Your task to perform on an android device: Go to eBay Image 0: 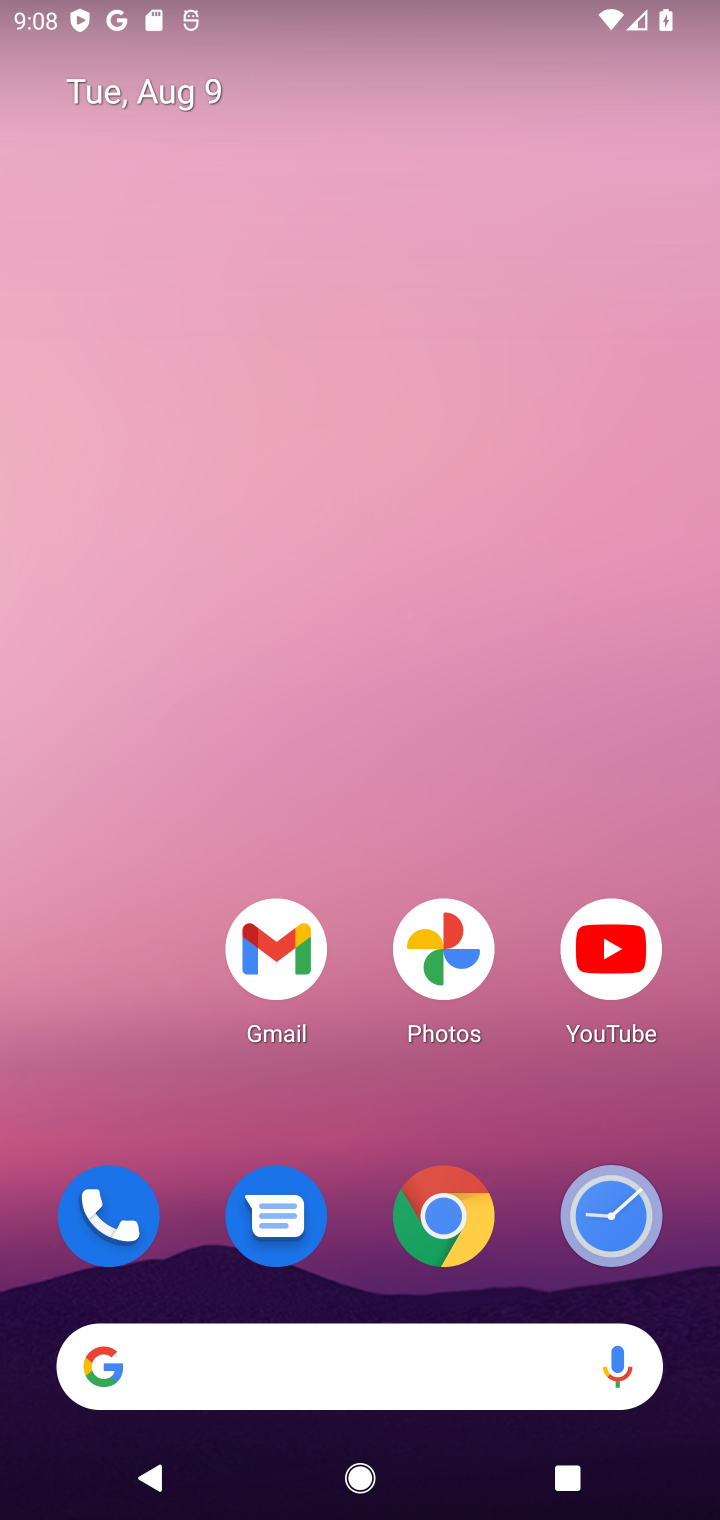
Step 0: drag from (290, 873) to (251, 585)
Your task to perform on an android device: Go to eBay Image 1: 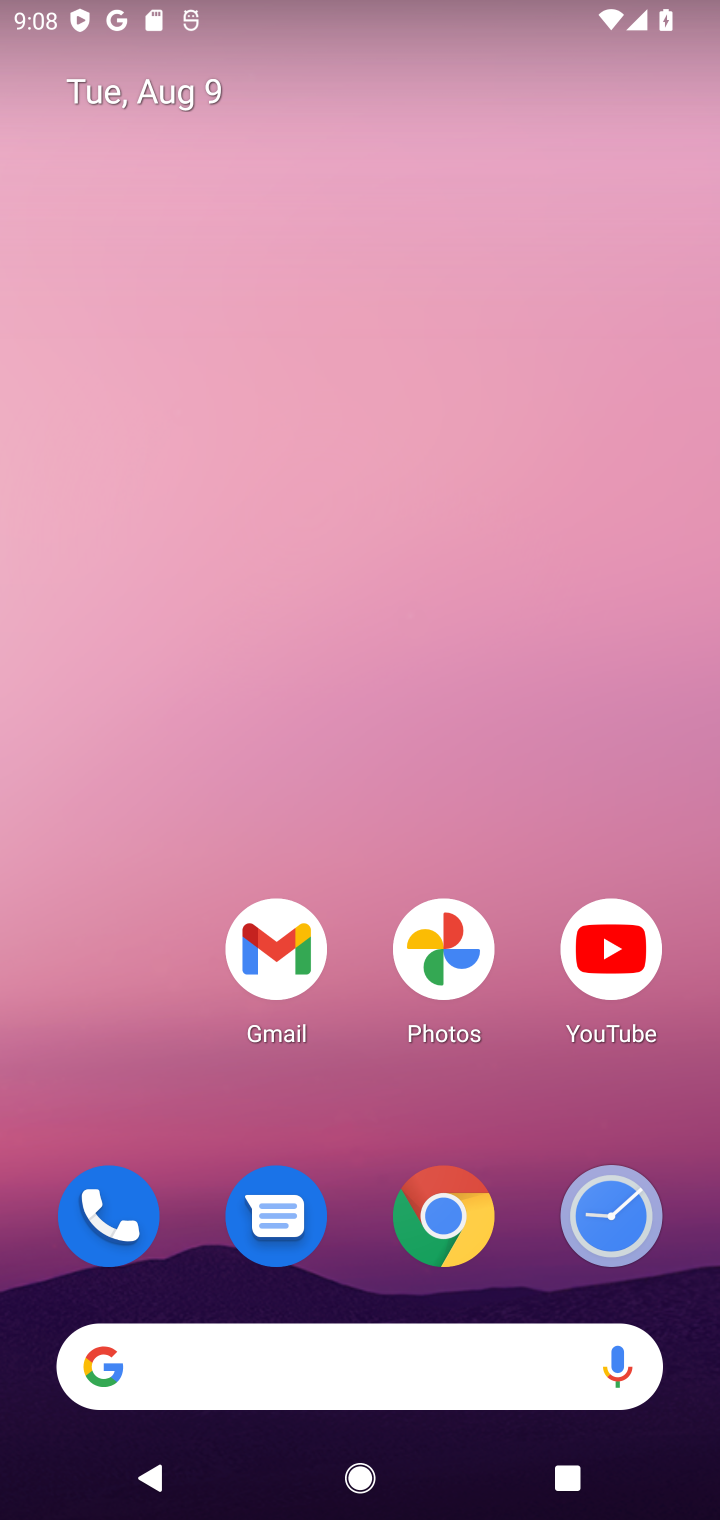
Step 1: drag from (340, 1267) to (448, 528)
Your task to perform on an android device: Go to eBay Image 2: 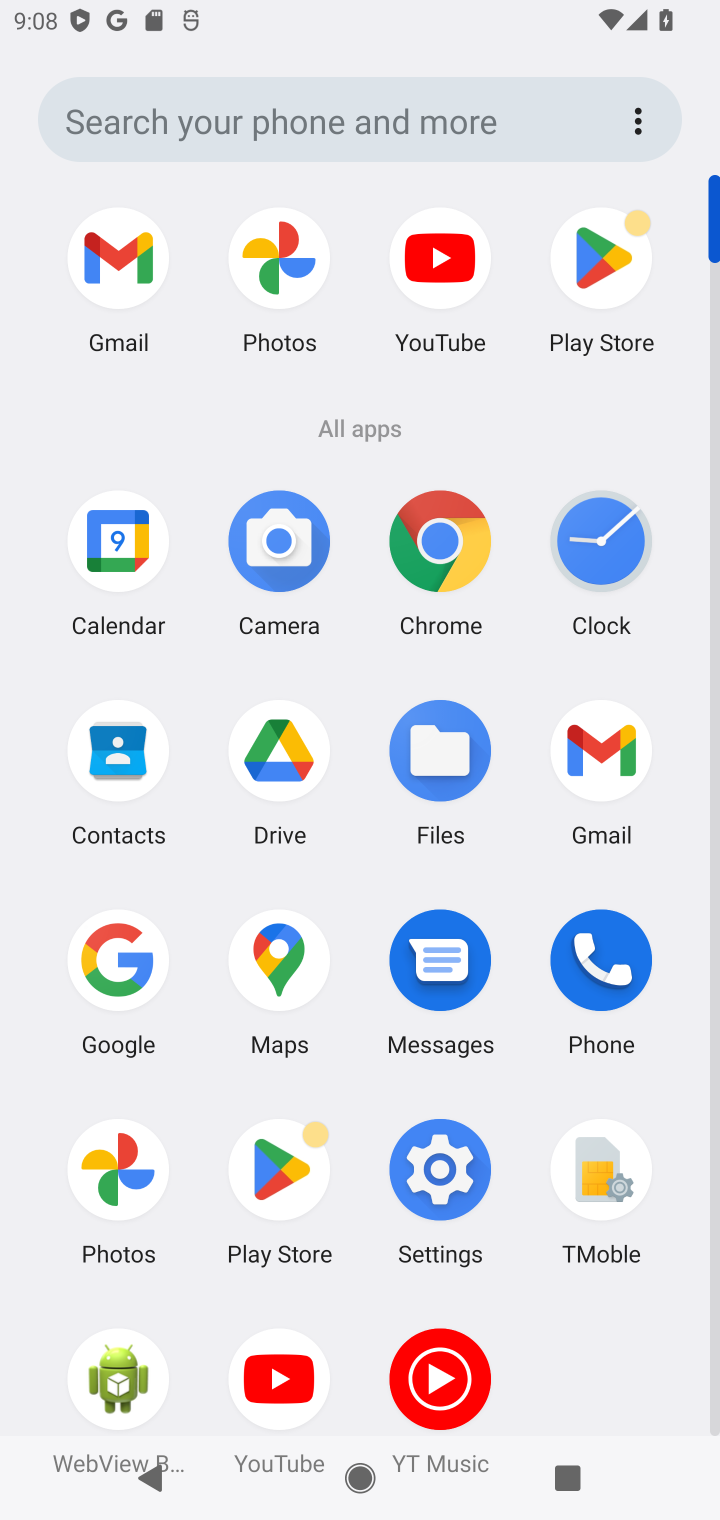
Step 2: click (439, 528)
Your task to perform on an android device: Go to eBay Image 3: 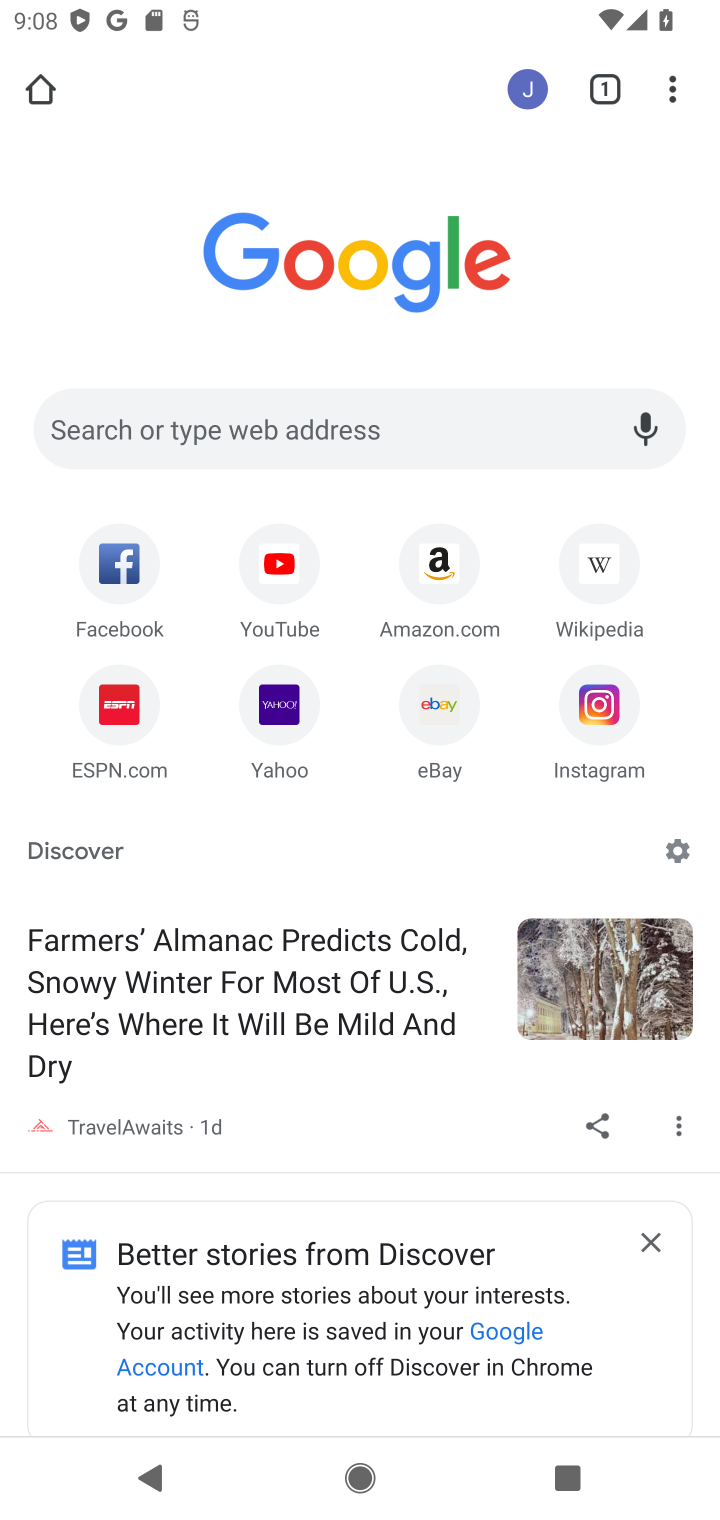
Step 3: click (282, 426)
Your task to perform on an android device: Go to eBay Image 4: 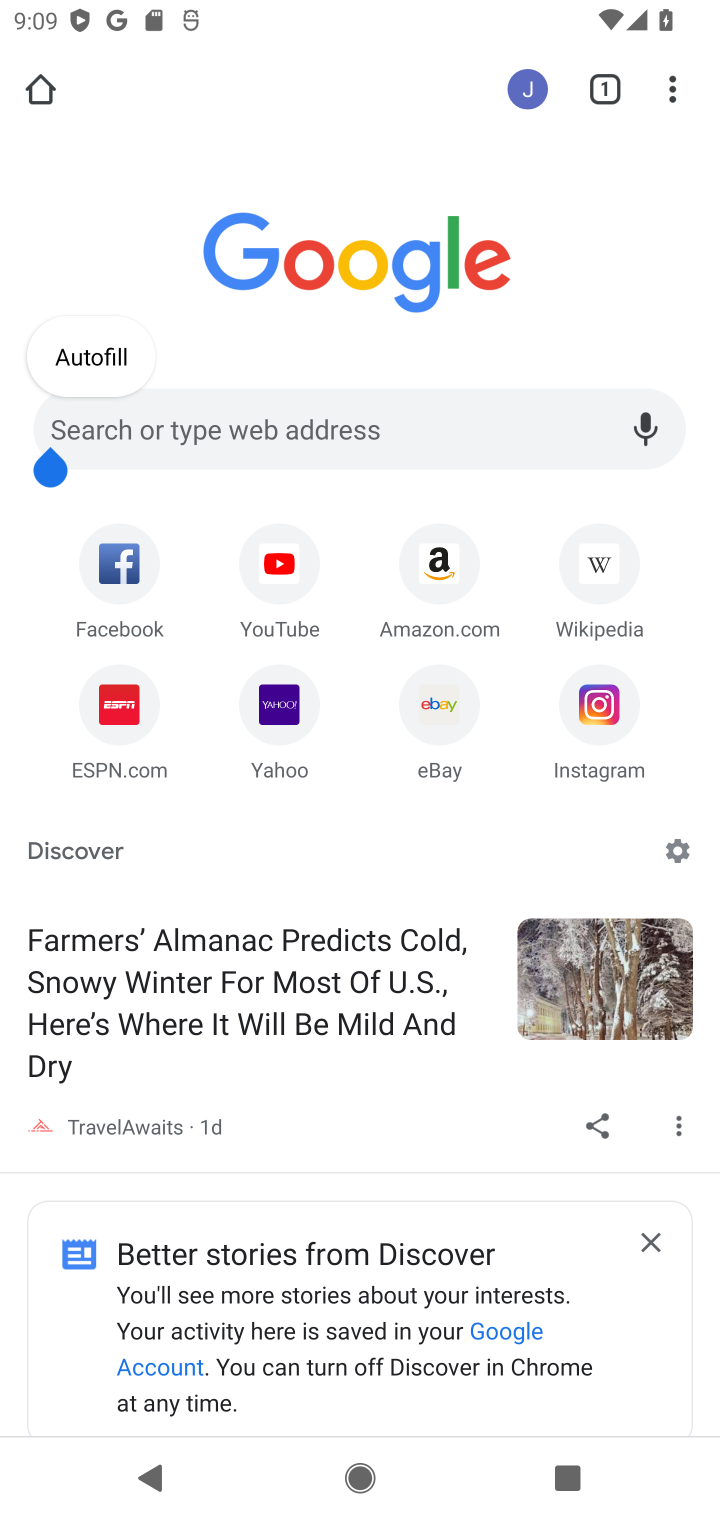
Step 4: click (429, 716)
Your task to perform on an android device: Go to eBay Image 5: 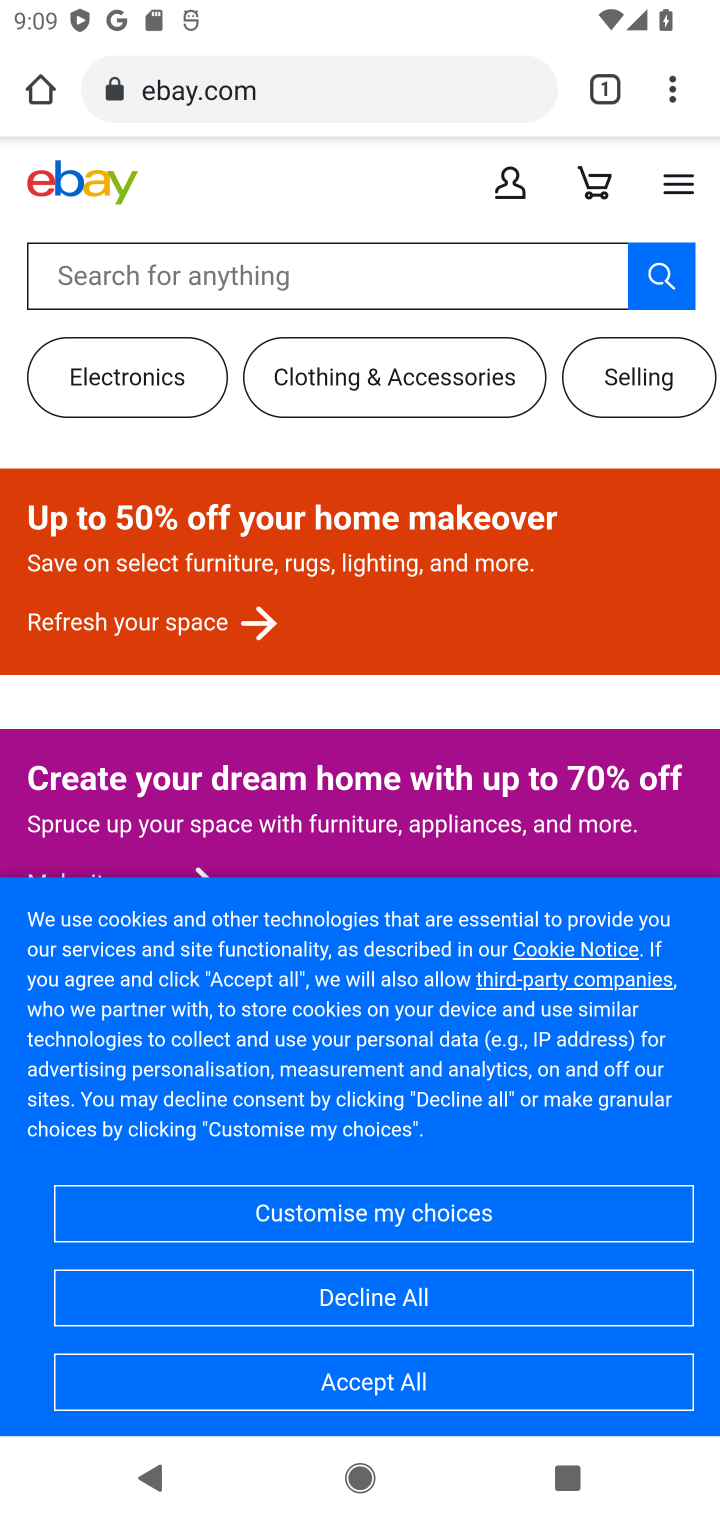
Step 5: task complete